Your task to perform on an android device: Go to Android settings Image 0: 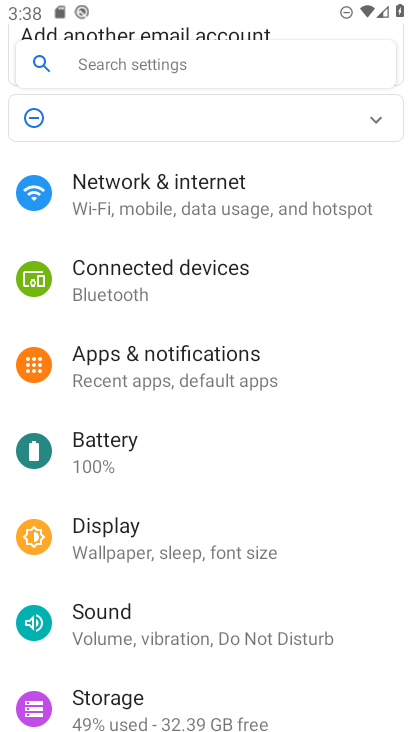
Step 0: drag from (310, 633) to (262, 120)
Your task to perform on an android device: Go to Android settings Image 1: 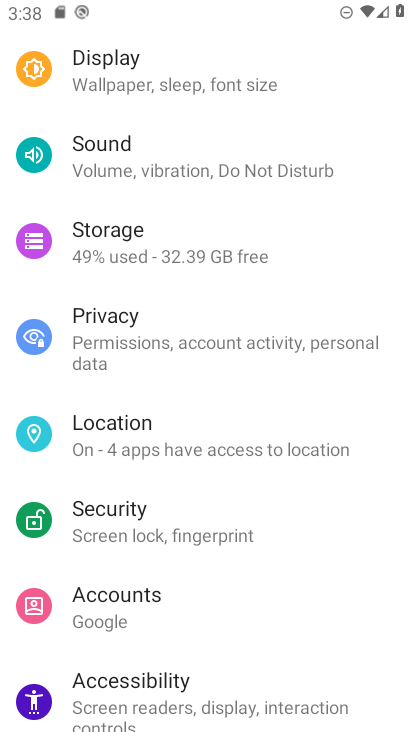
Step 1: drag from (239, 570) to (238, 121)
Your task to perform on an android device: Go to Android settings Image 2: 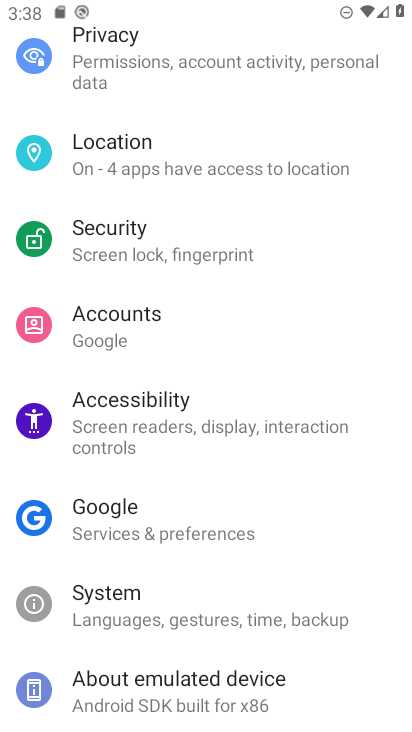
Step 2: click (233, 696)
Your task to perform on an android device: Go to Android settings Image 3: 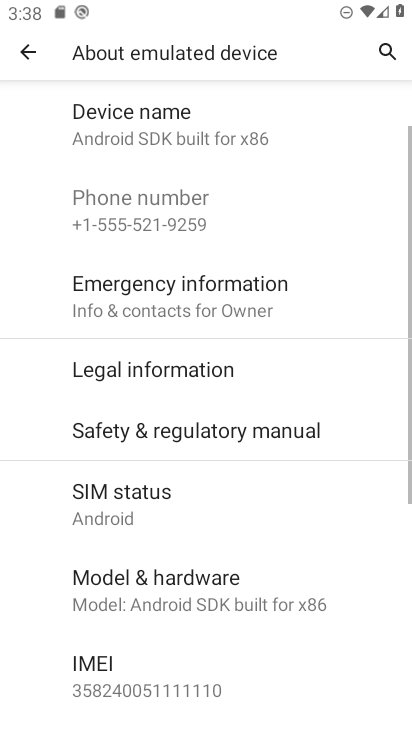
Step 3: task complete